Your task to perform on an android device: Search for Italian restaurants on Maps Image 0: 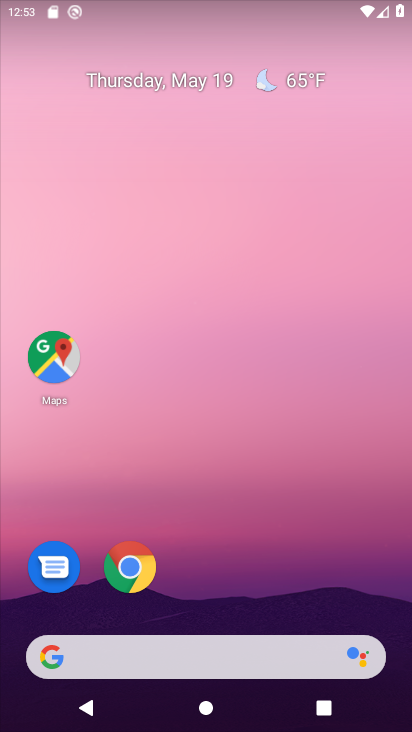
Step 0: click (57, 360)
Your task to perform on an android device: Search for Italian restaurants on Maps Image 1: 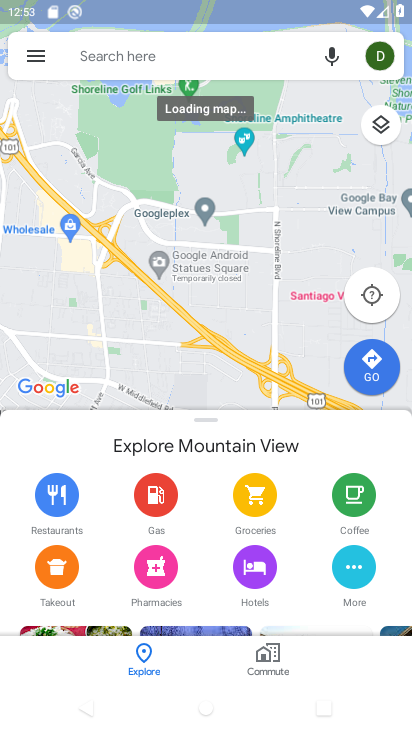
Step 1: click (225, 57)
Your task to perform on an android device: Search for Italian restaurants on Maps Image 2: 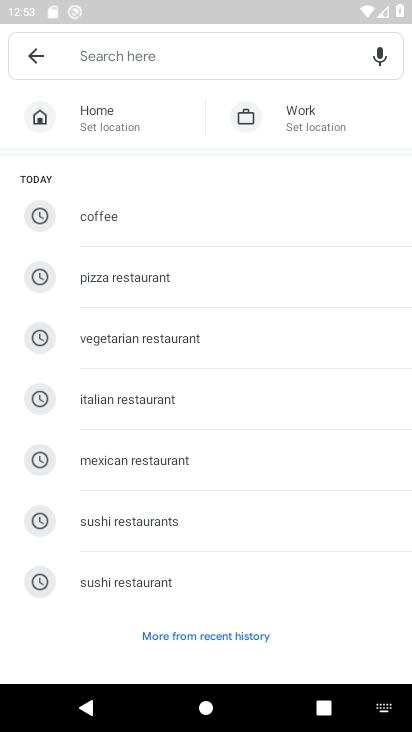
Step 2: click (151, 390)
Your task to perform on an android device: Search for Italian restaurants on Maps Image 3: 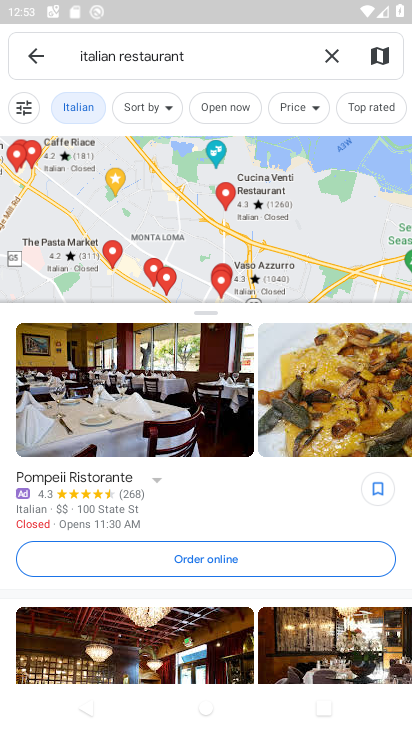
Step 3: task complete